Your task to perform on an android device: open app "Yahoo Mail" Image 0: 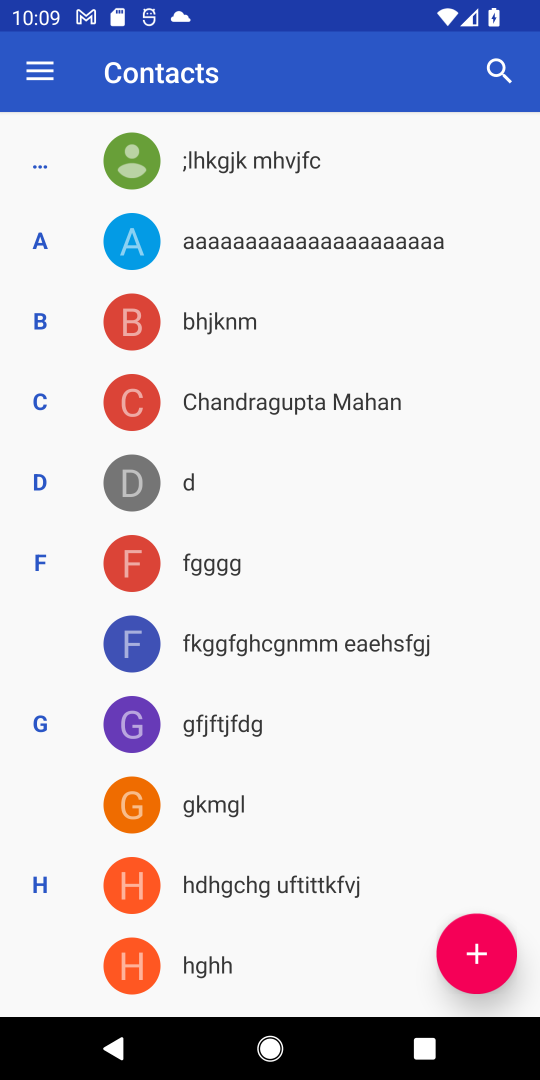
Step 0: press home button
Your task to perform on an android device: open app "Yahoo Mail" Image 1: 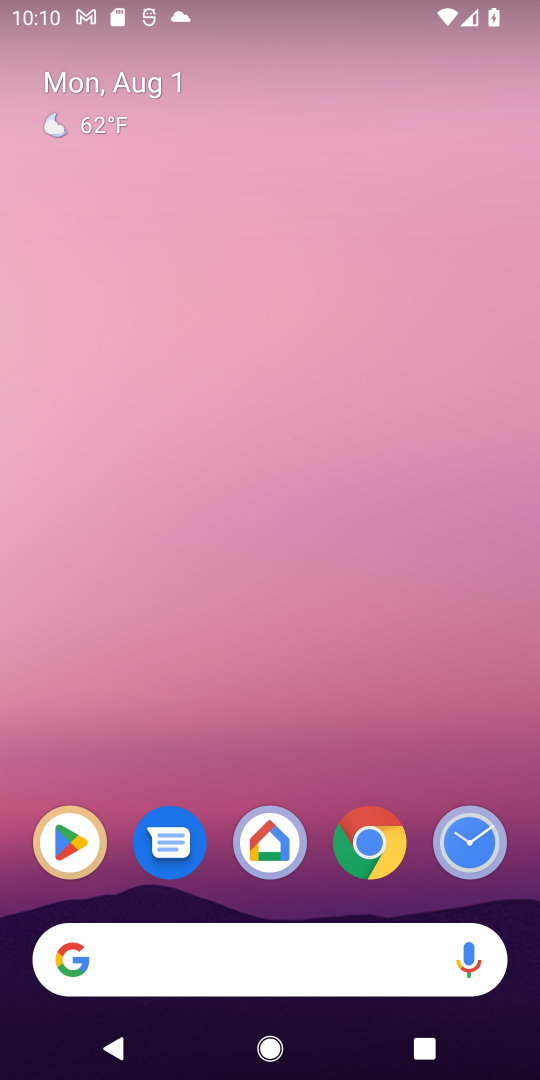
Step 1: click (74, 845)
Your task to perform on an android device: open app "Yahoo Mail" Image 2: 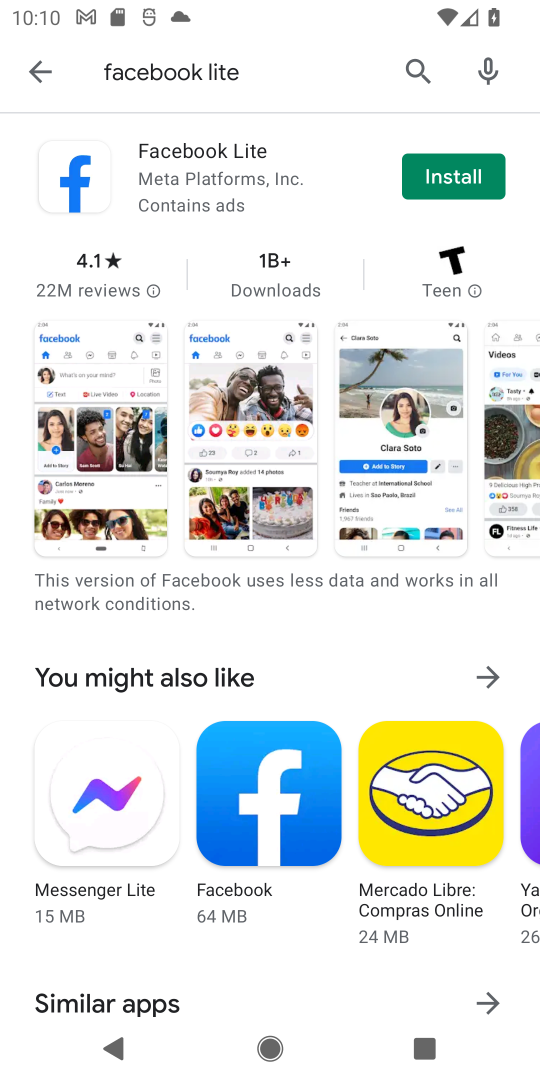
Step 2: type "Yahoo Mail"
Your task to perform on an android device: open app "Yahoo Mail" Image 3: 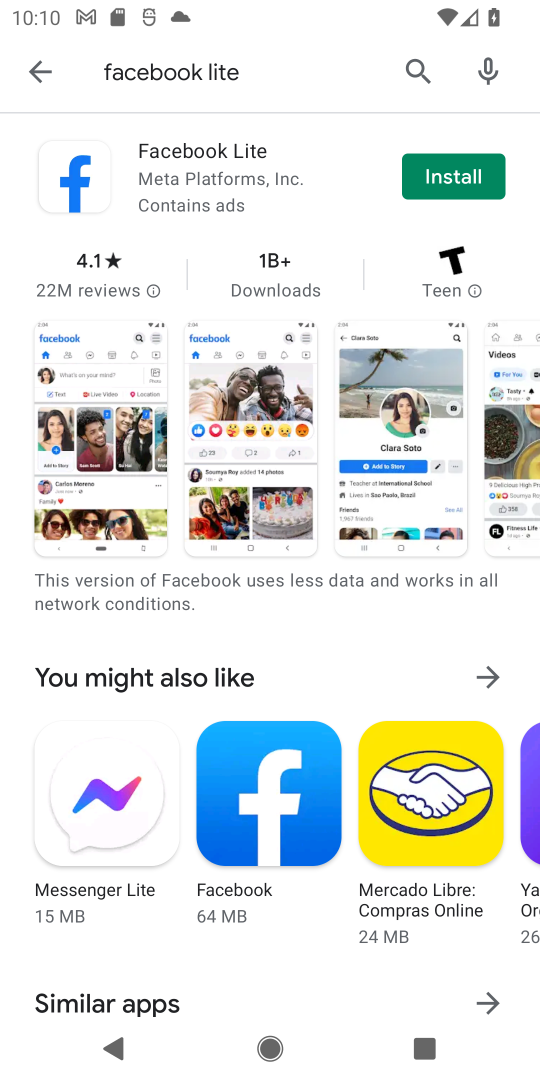
Step 3: click (421, 59)
Your task to perform on an android device: open app "Yahoo Mail" Image 4: 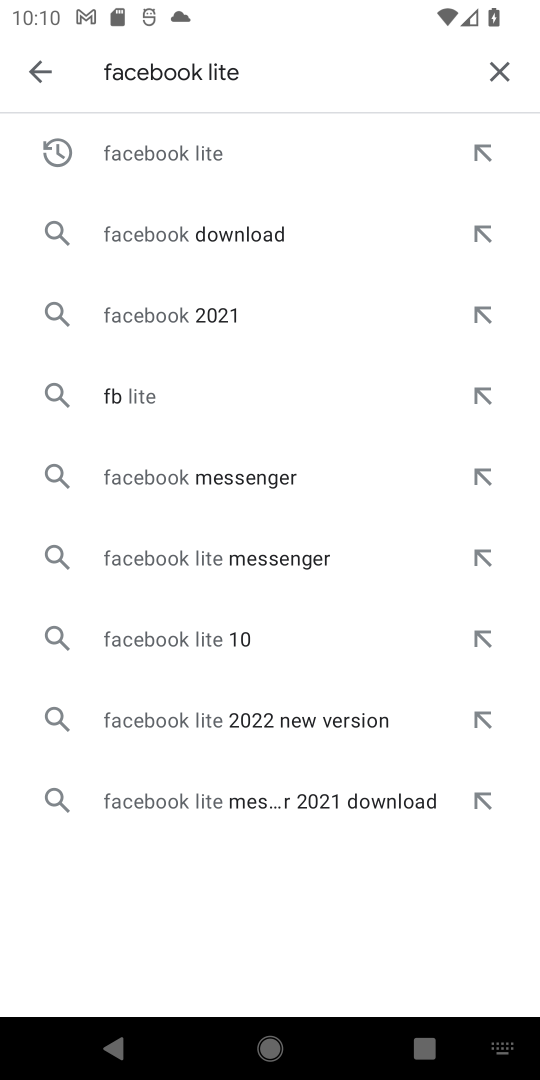
Step 4: click (511, 65)
Your task to perform on an android device: open app "Yahoo Mail" Image 5: 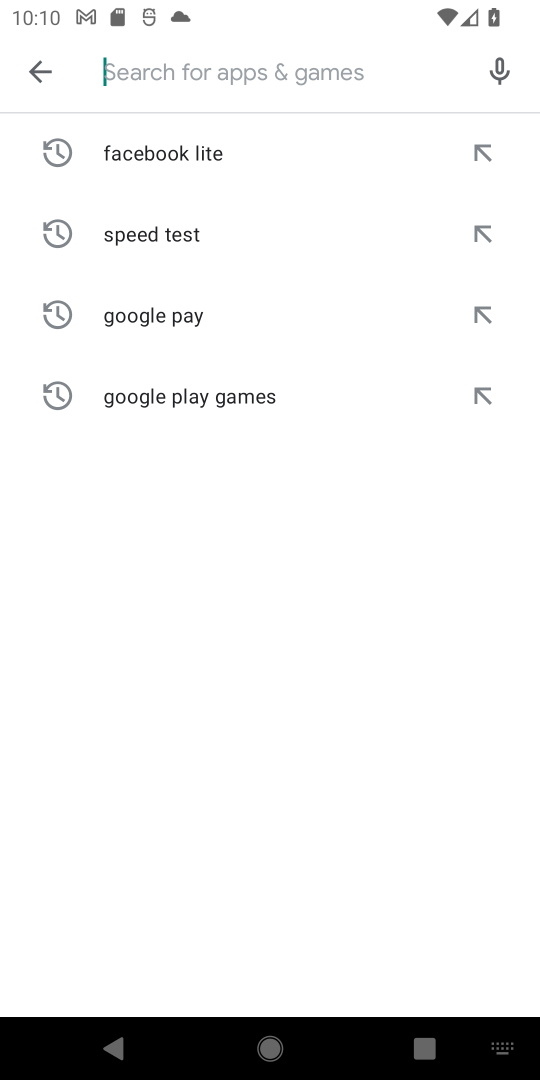
Step 5: click (246, 64)
Your task to perform on an android device: open app "Yahoo Mail" Image 6: 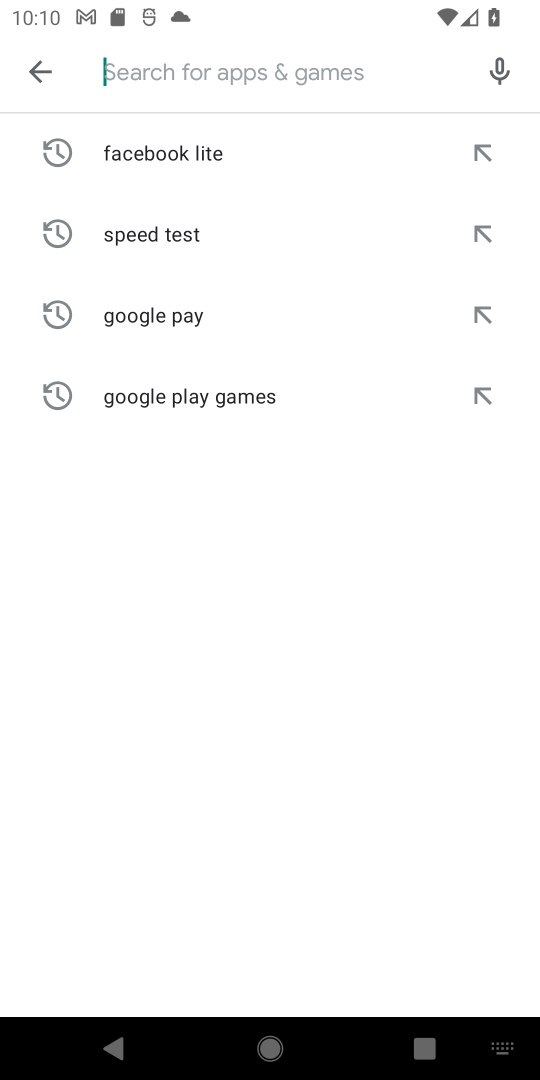
Step 6: type "Yahoo Mail"
Your task to perform on an android device: open app "Yahoo Mail" Image 7: 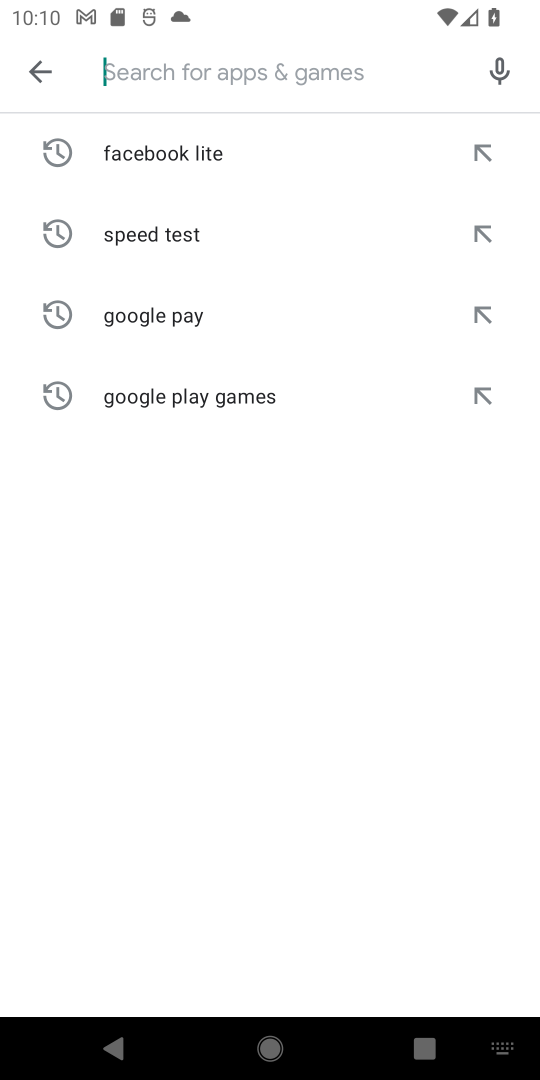
Step 7: click (267, 548)
Your task to perform on an android device: open app "Yahoo Mail" Image 8: 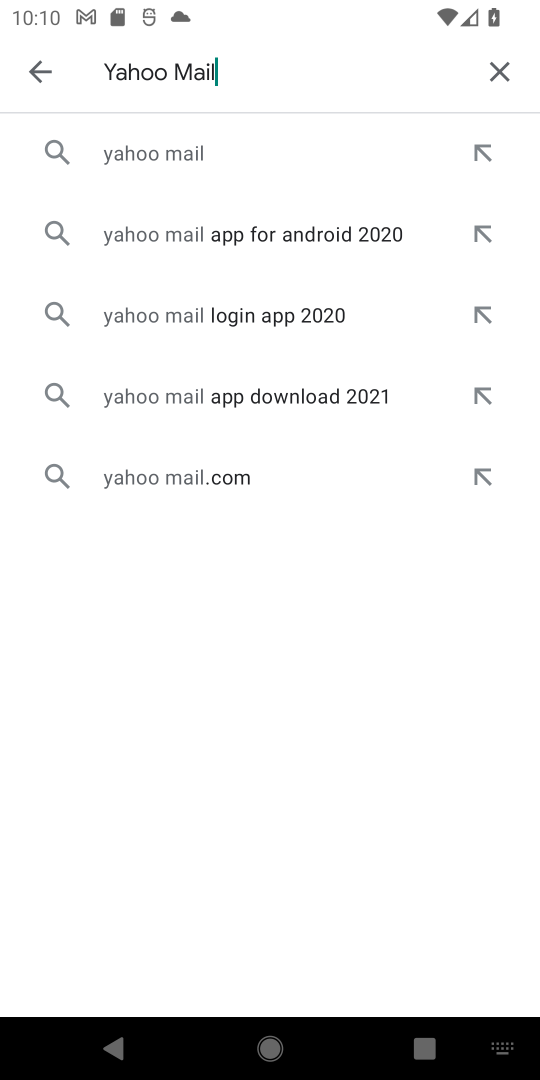
Step 8: click (176, 146)
Your task to perform on an android device: open app "Yahoo Mail" Image 9: 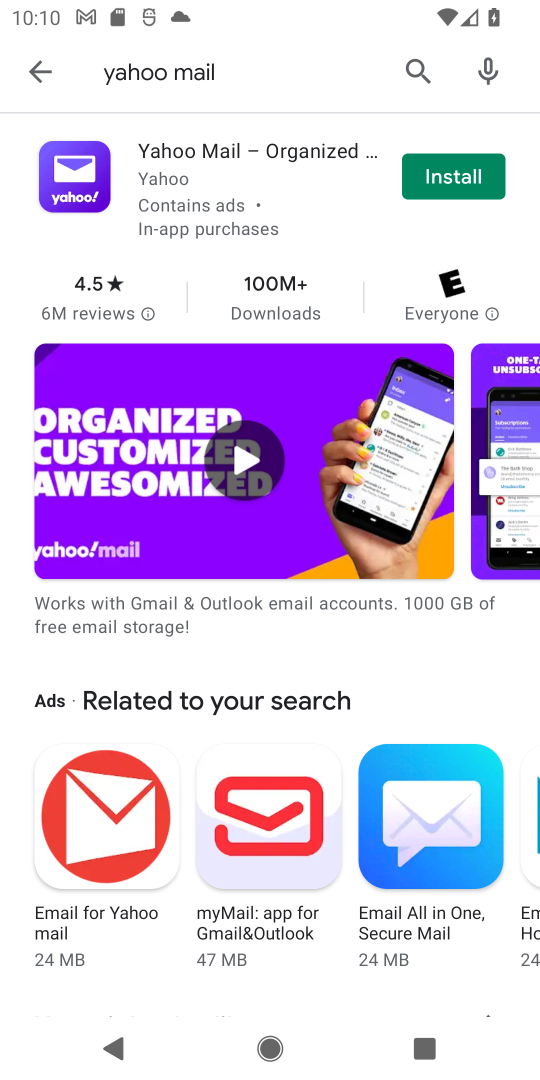
Step 9: task complete